Your task to perform on an android device: Show me popular videos on Youtube Image 0: 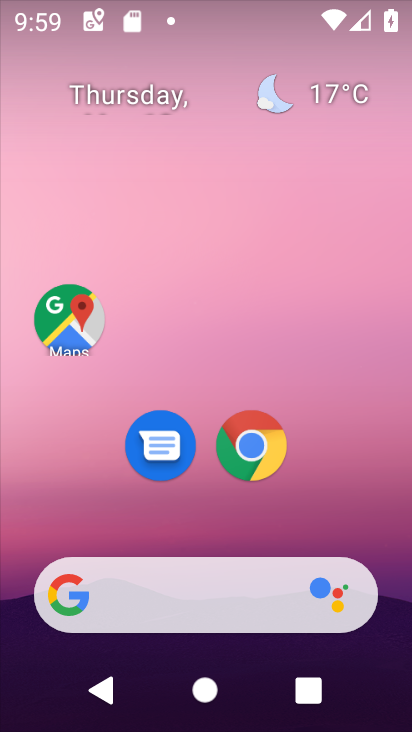
Step 0: drag from (221, 545) to (250, 132)
Your task to perform on an android device: Show me popular videos on Youtube Image 1: 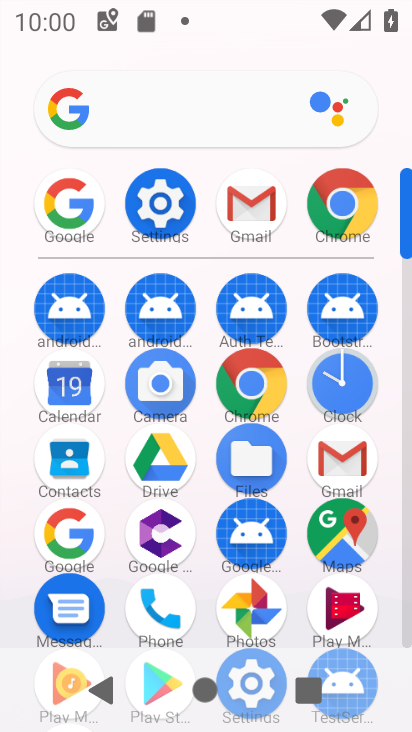
Step 1: drag from (206, 265) to (205, 119)
Your task to perform on an android device: Show me popular videos on Youtube Image 2: 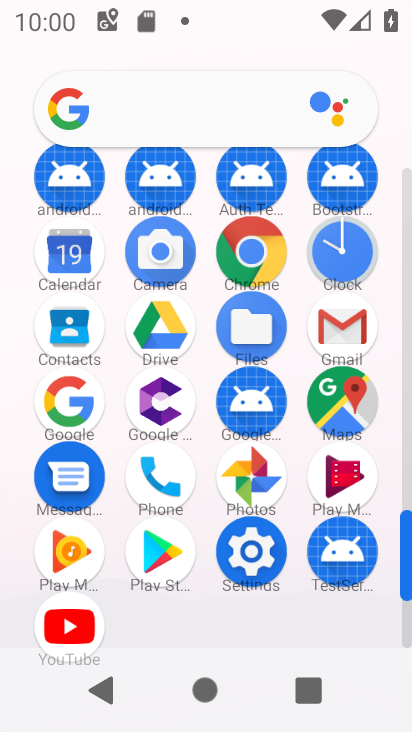
Step 2: click (59, 635)
Your task to perform on an android device: Show me popular videos on Youtube Image 3: 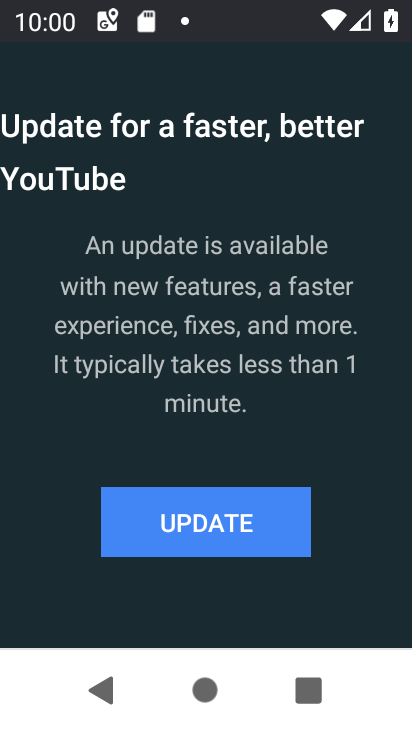
Step 3: click (188, 542)
Your task to perform on an android device: Show me popular videos on Youtube Image 4: 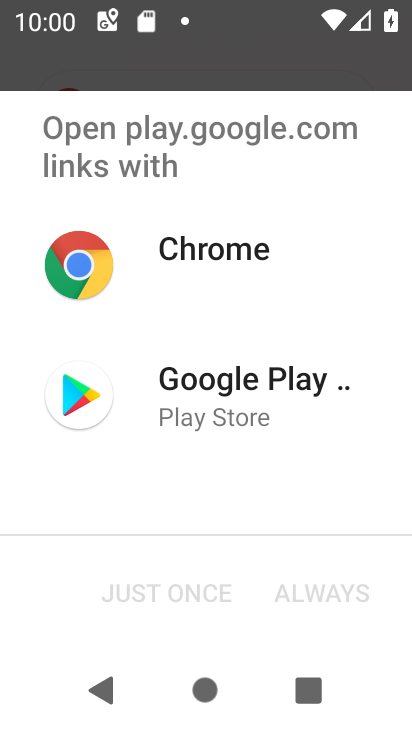
Step 4: click (251, 406)
Your task to perform on an android device: Show me popular videos on Youtube Image 5: 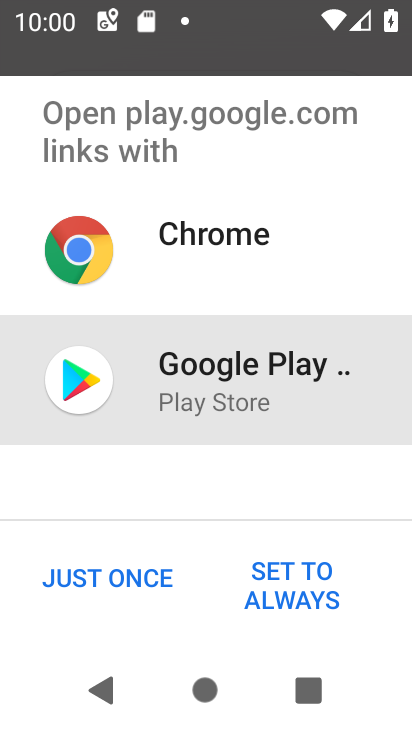
Step 5: drag from (329, 584) to (405, 576)
Your task to perform on an android device: Show me popular videos on Youtube Image 6: 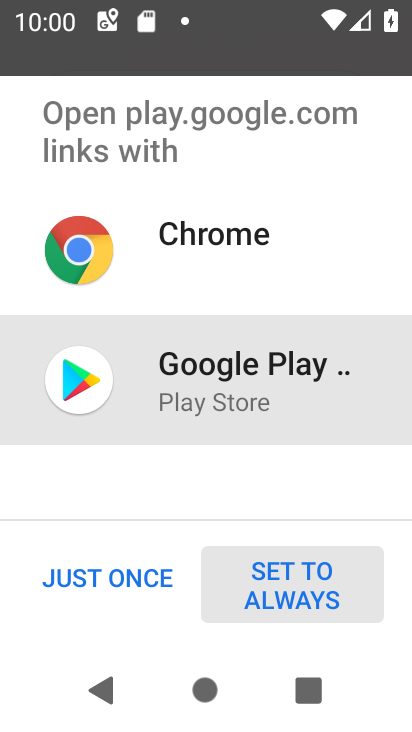
Step 6: click (287, 603)
Your task to perform on an android device: Show me popular videos on Youtube Image 7: 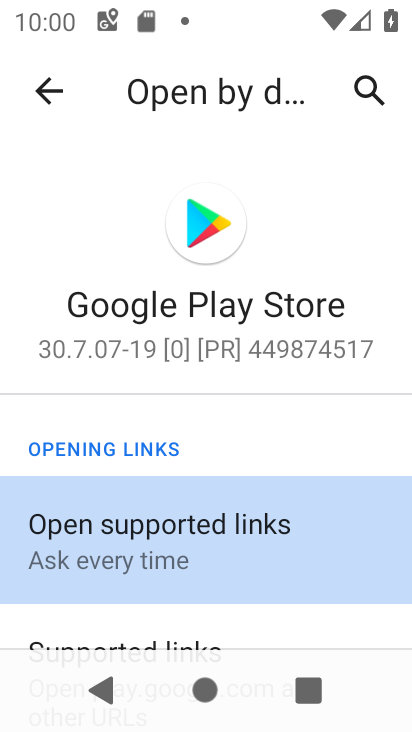
Step 7: click (122, 702)
Your task to perform on an android device: Show me popular videos on Youtube Image 8: 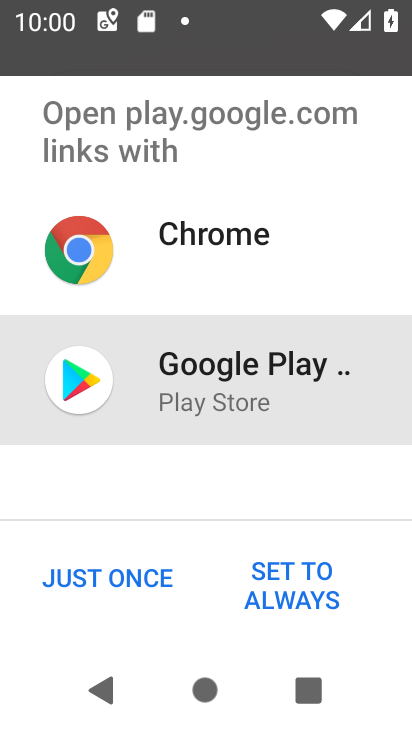
Step 8: click (261, 588)
Your task to perform on an android device: Show me popular videos on Youtube Image 9: 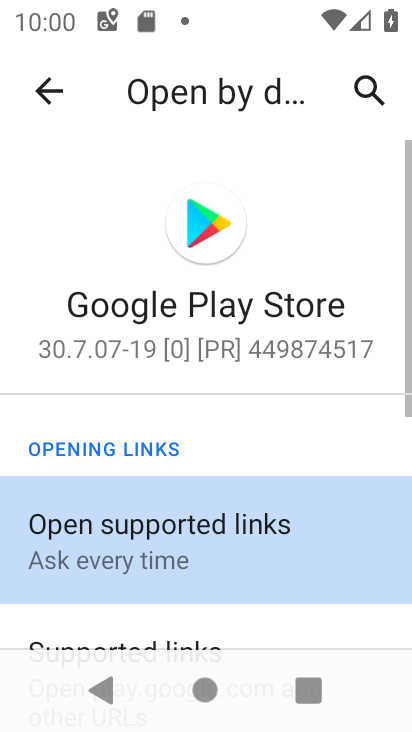
Step 9: click (84, 694)
Your task to perform on an android device: Show me popular videos on Youtube Image 10: 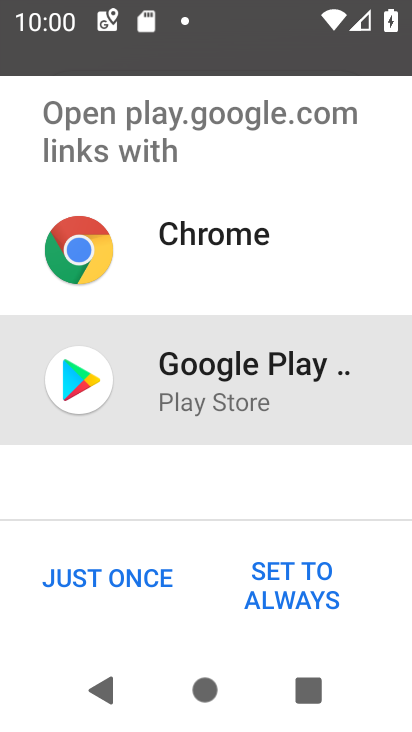
Step 10: click (125, 573)
Your task to perform on an android device: Show me popular videos on Youtube Image 11: 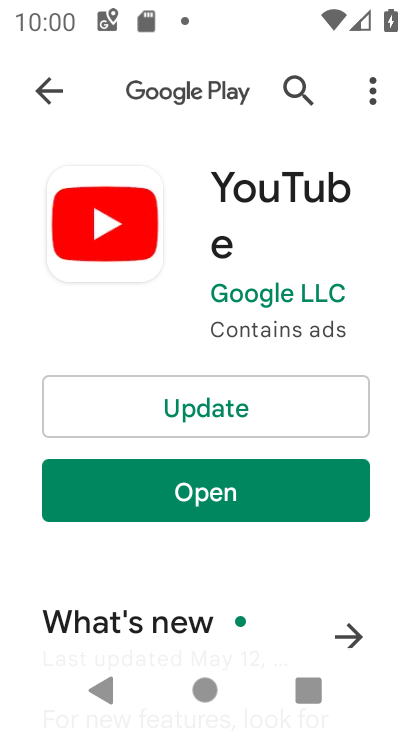
Step 11: click (271, 404)
Your task to perform on an android device: Show me popular videos on Youtube Image 12: 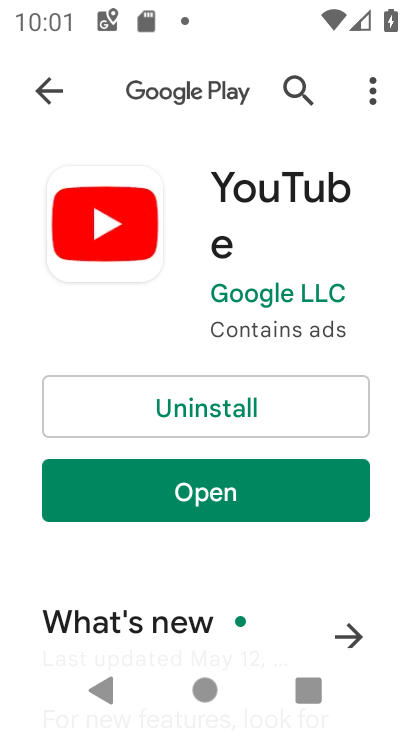
Step 12: click (239, 509)
Your task to perform on an android device: Show me popular videos on Youtube Image 13: 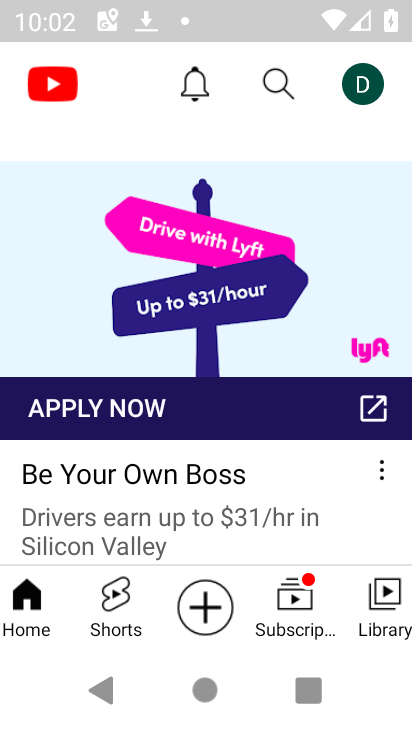
Step 13: click (54, 95)
Your task to perform on an android device: Show me popular videos on Youtube Image 14: 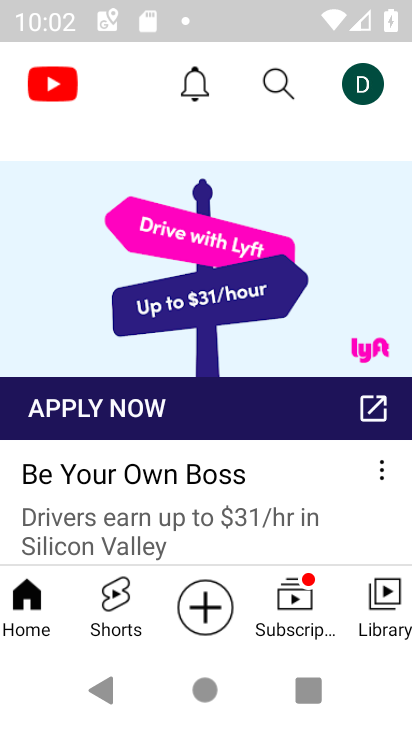
Step 14: drag from (124, 153) to (208, 493)
Your task to perform on an android device: Show me popular videos on Youtube Image 15: 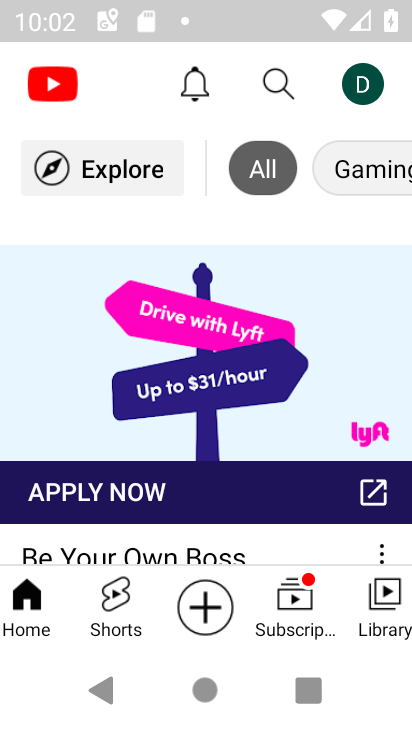
Step 15: click (79, 160)
Your task to perform on an android device: Show me popular videos on Youtube Image 16: 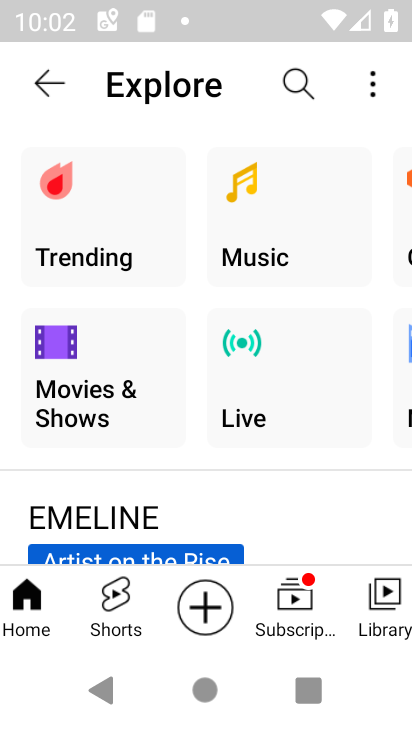
Step 16: click (116, 247)
Your task to perform on an android device: Show me popular videos on Youtube Image 17: 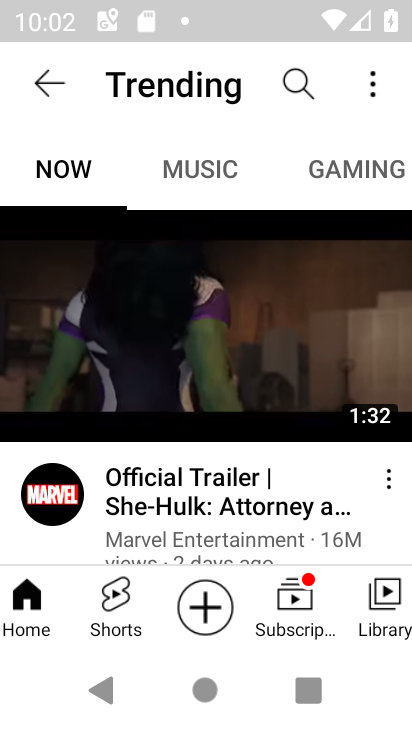
Step 17: task complete